Your task to perform on an android device: empty trash in the gmail app Image 0: 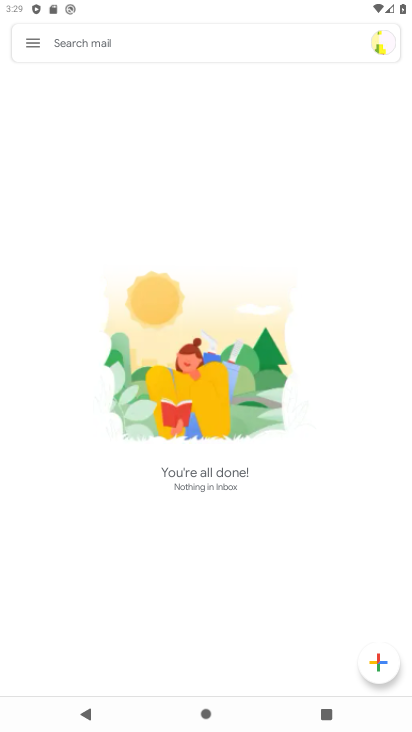
Step 0: press home button
Your task to perform on an android device: empty trash in the gmail app Image 1: 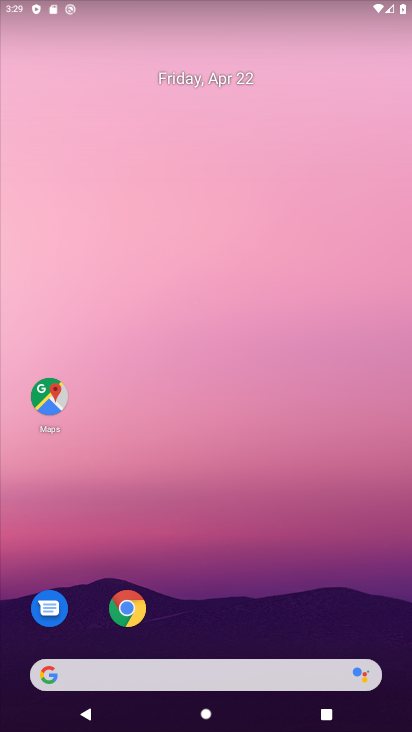
Step 1: drag from (297, 599) to (264, 139)
Your task to perform on an android device: empty trash in the gmail app Image 2: 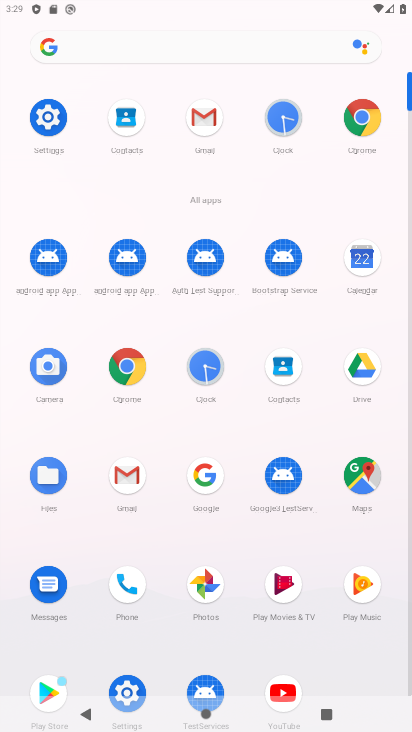
Step 2: click (203, 111)
Your task to perform on an android device: empty trash in the gmail app Image 3: 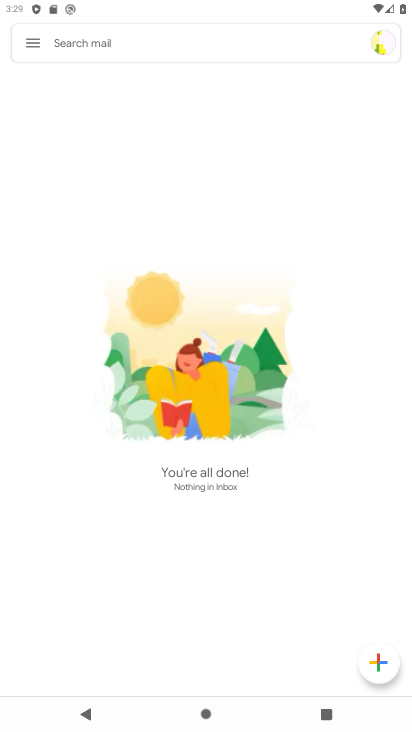
Step 3: click (34, 46)
Your task to perform on an android device: empty trash in the gmail app Image 4: 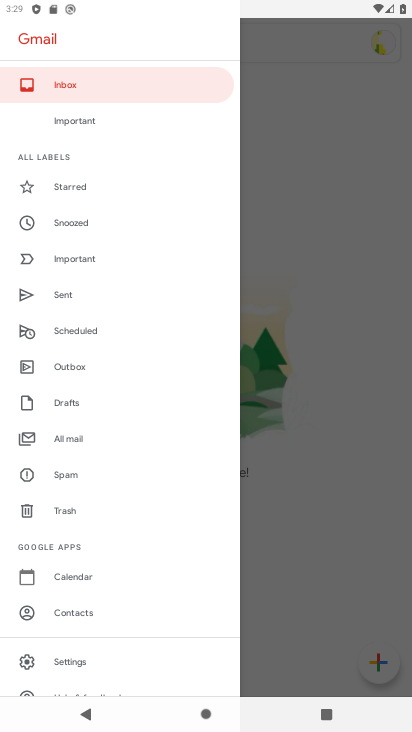
Step 4: click (82, 501)
Your task to perform on an android device: empty trash in the gmail app Image 5: 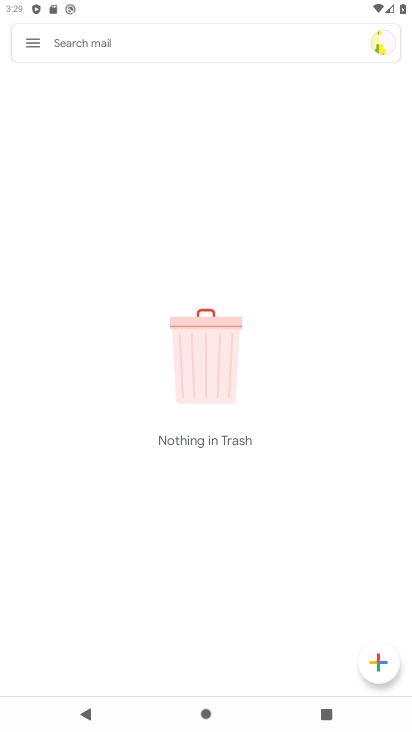
Step 5: task complete